Your task to perform on an android device: change notifications settings Image 0: 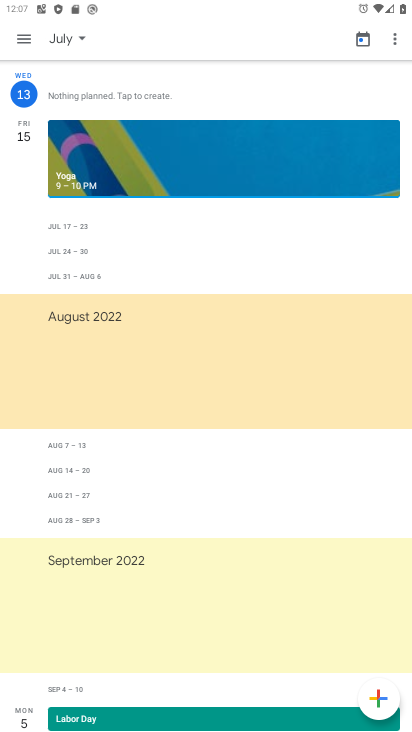
Step 0: press back button
Your task to perform on an android device: change notifications settings Image 1: 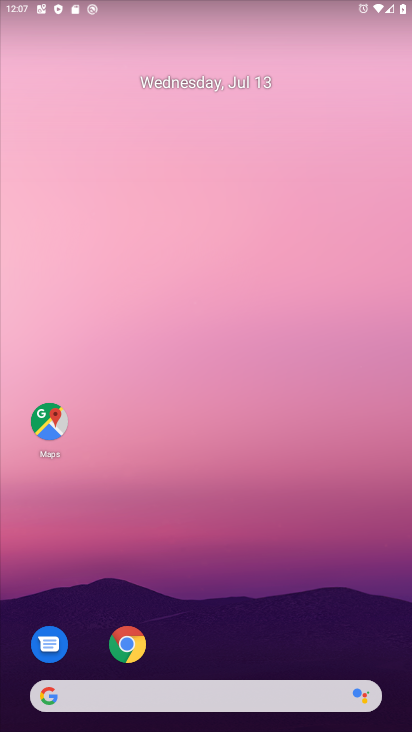
Step 1: drag from (184, 188) to (167, 101)
Your task to perform on an android device: change notifications settings Image 2: 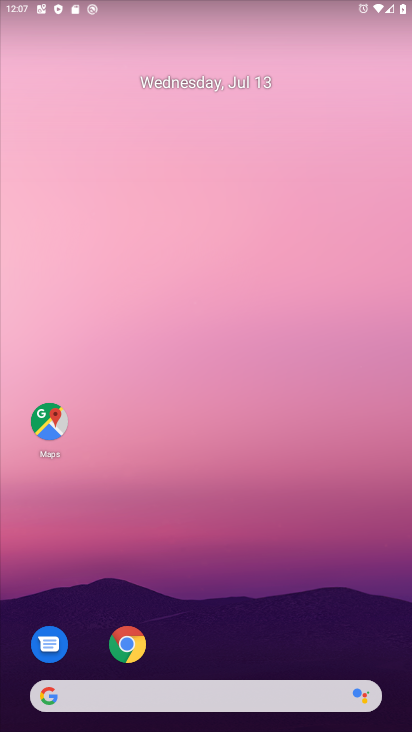
Step 2: drag from (184, 508) to (122, 197)
Your task to perform on an android device: change notifications settings Image 3: 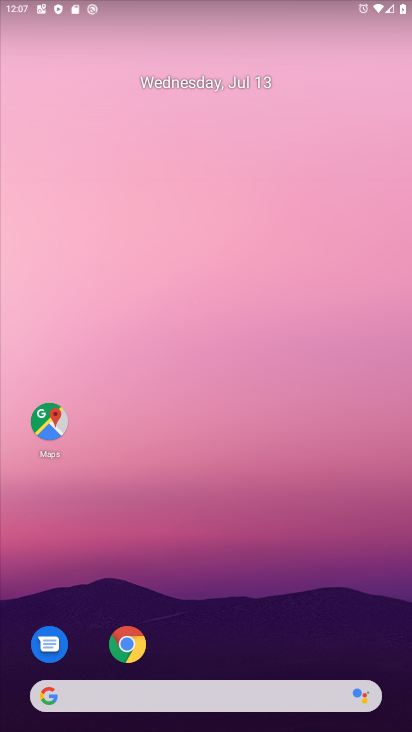
Step 3: drag from (279, 641) to (145, 91)
Your task to perform on an android device: change notifications settings Image 4: 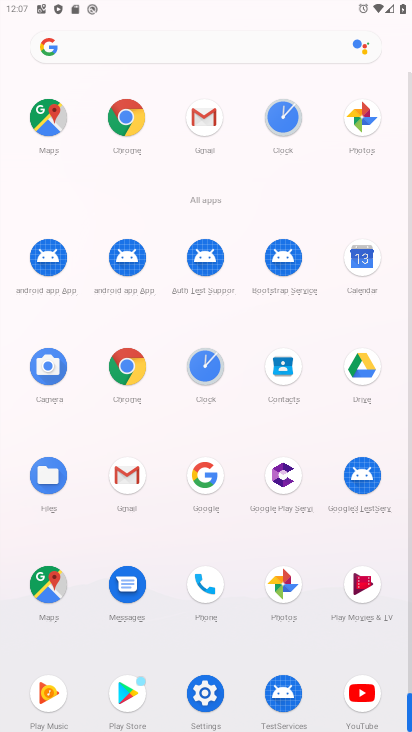
Step 4: click (207, 685)
Your task to perform on an android device: change notifications settings Image 5: 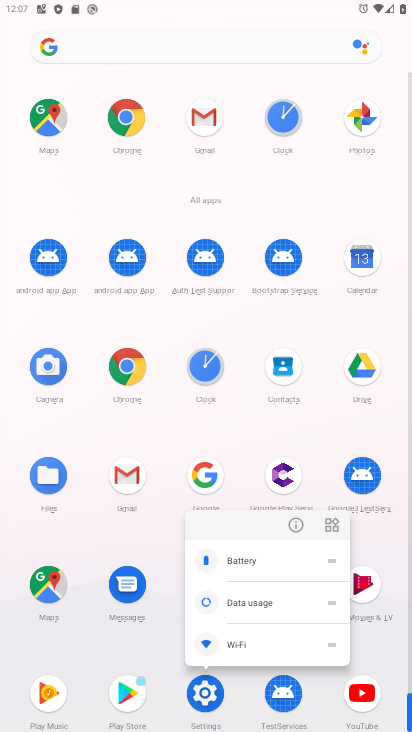
Step 5: click (205, 694)
Your task to perform on an android device: change notifications settings Image 6: 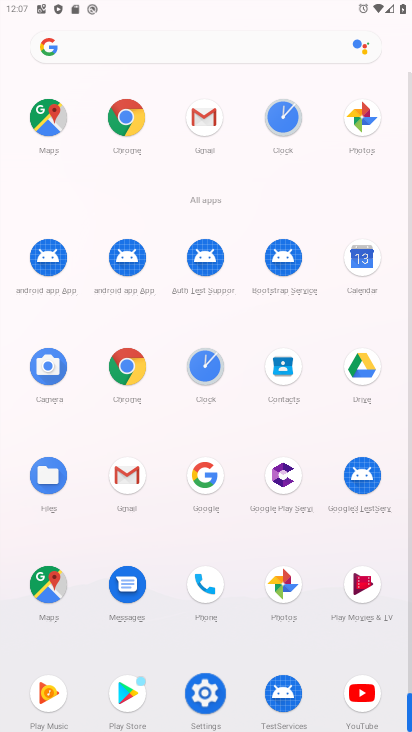
Step 6: click (205, 694)
Your task to perform on an android device: change notifications settings Image 7: 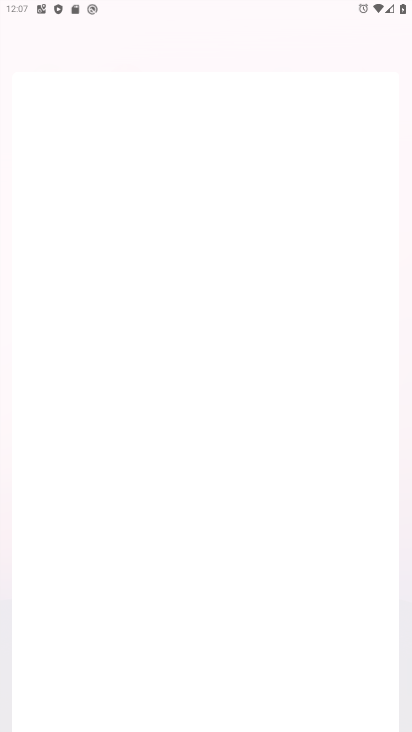
Step 7: click (205, 694)
Your task to perform on an android device: change notifications settings Image 8: 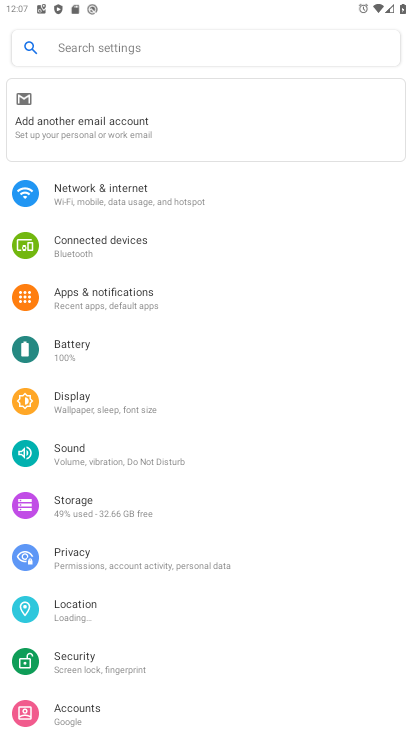
Step 8: click (119, 285)
Your task to perform on an android device: change notifications settings Image 9: 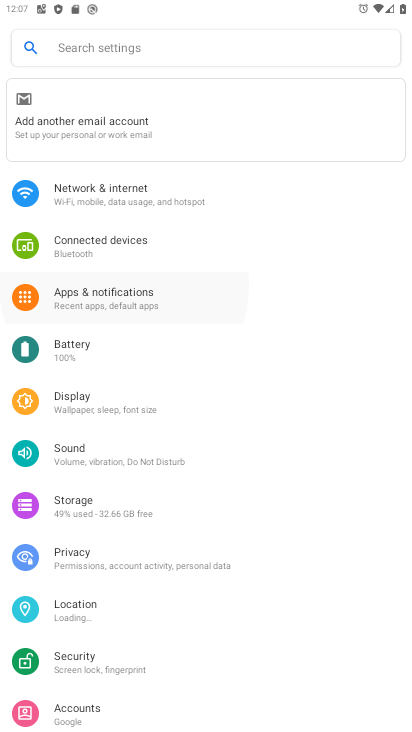
Step 9: click (118, 286)
Your task to perform on an android device: change notifications settings Image 10: 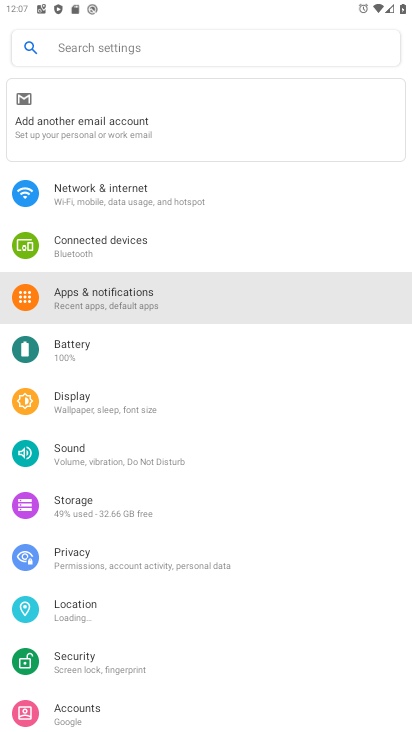
Step 10: click (118, 286)
Your task to perform on an android device: change notifications settings Image 11: 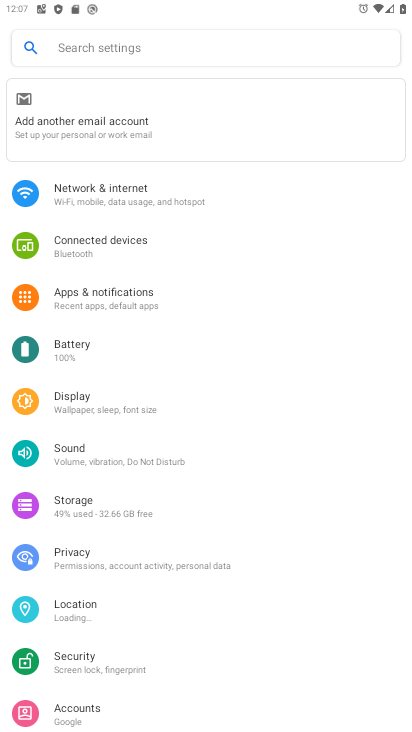
Step 11: click (119, 286)
Your task to perform on an android device: change notifications settings Image 12: 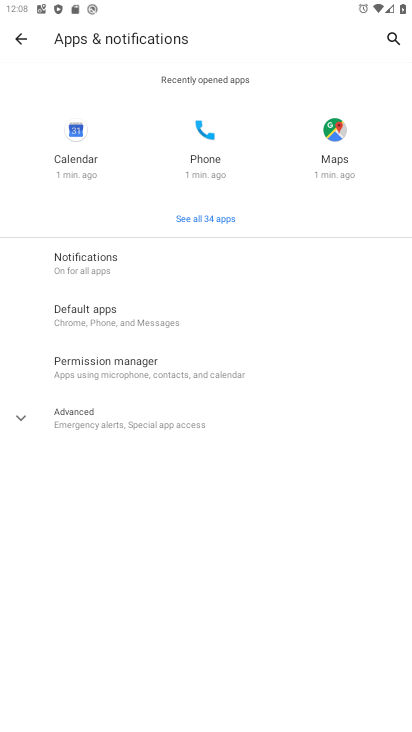
Step 12: click (99, 262)
Your task to perform on an android device: change notifications settings Image 13: 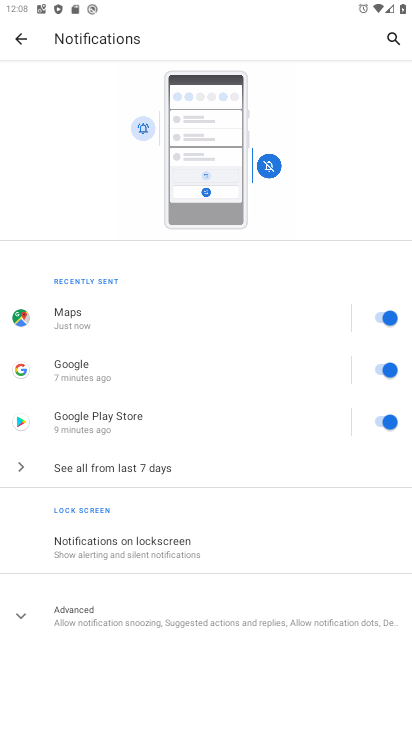
Step 13: click (388, 314)
Your task to perform on an android device: change notifications settings Image 14: 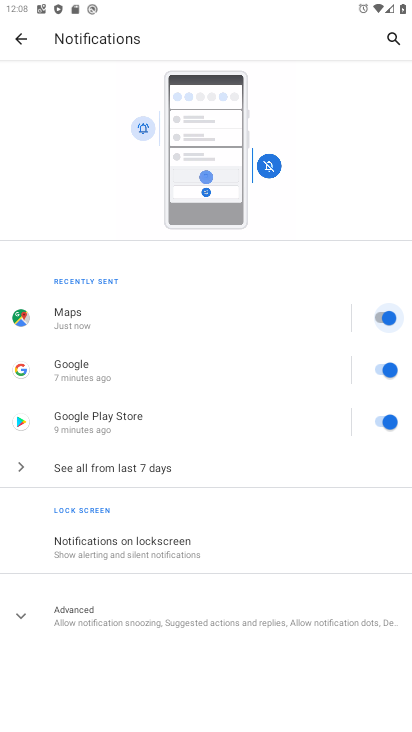
Step 14: click (383, 360)
Your task to perform on an android device: change notifications settings Image 15: 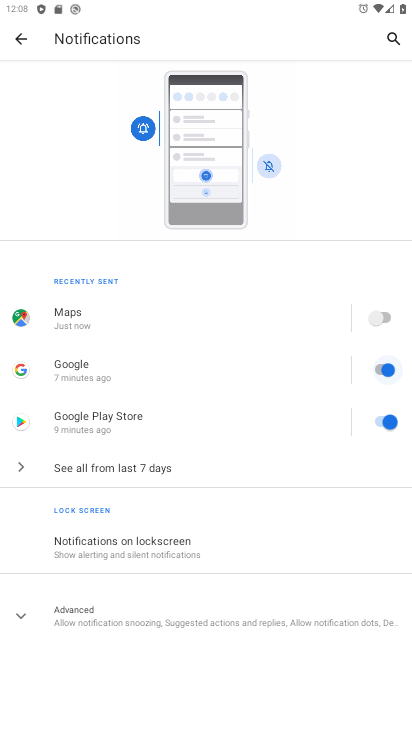
Step 15: click (392, 314)
Your task to perform on an android device: change notifications settings Image 16: 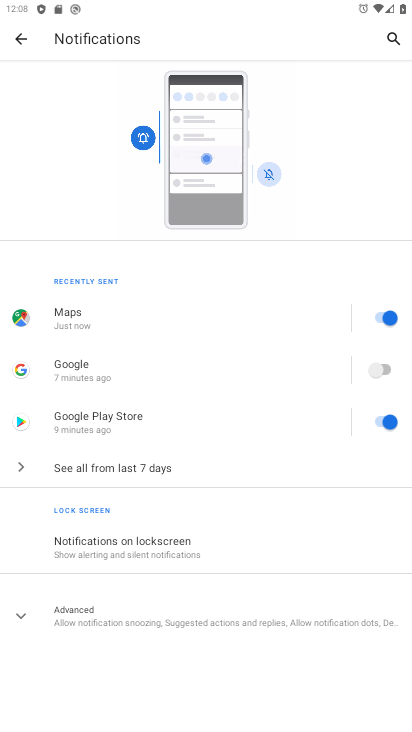
Step 16: click (390, 421)
Your task to perform on an android device: change notifications settings Image 17: 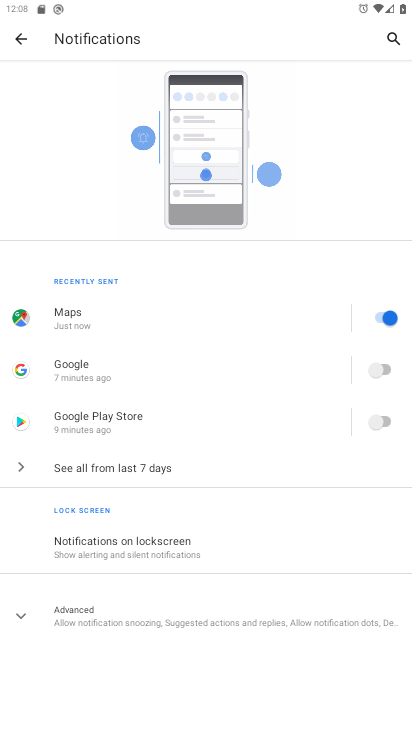
Step 17: click (385, 319)
Your task to perform on an android device: change notifications settings Image 18: 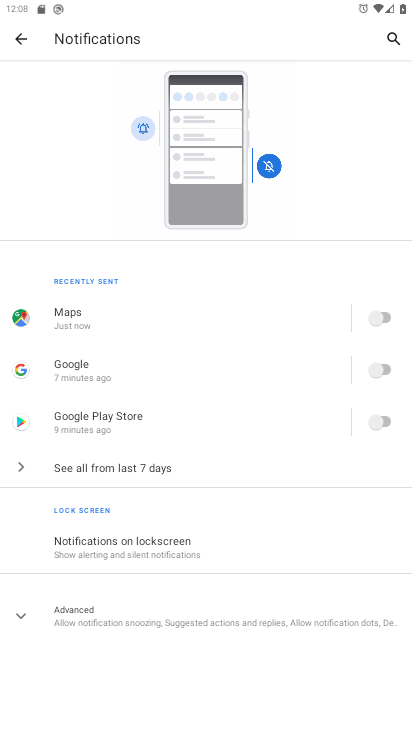
Step 18: task complete